Your task to perform on an android device: change the clock display to digital Image 0: 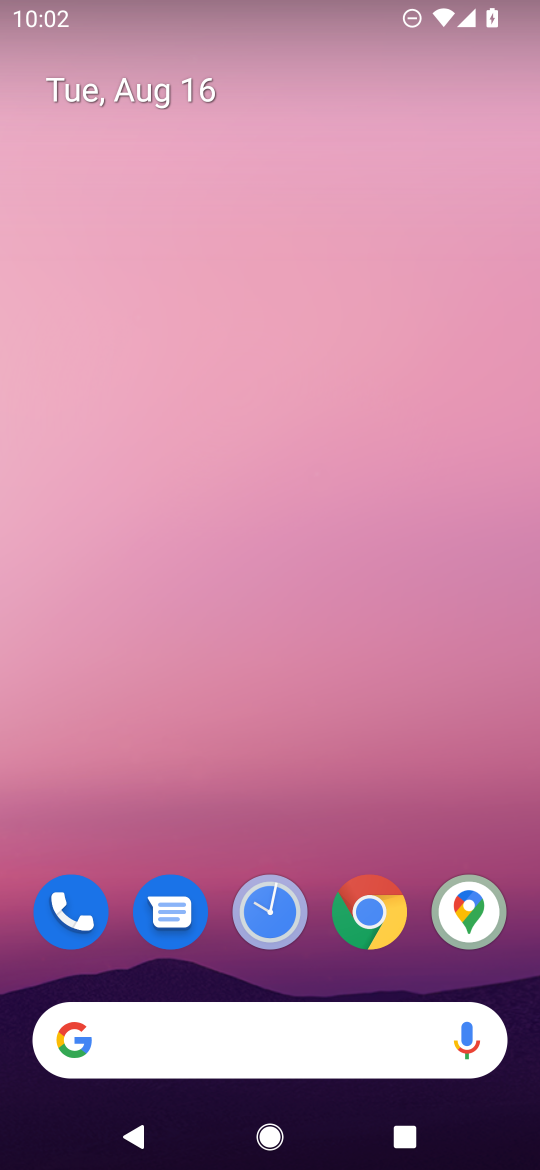
Step 0: click (297, 907)
Your task to perform on an android device: change the clock display to digital Image 1: 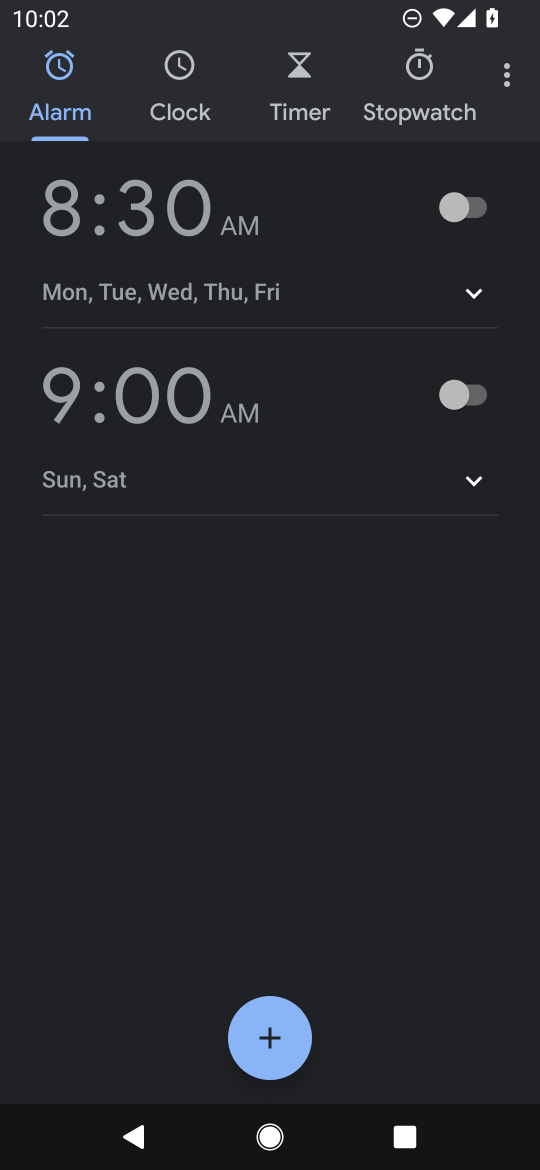
Step 1: click (520, 64)
Your task to perform on an android device: change the clock display to digital Image 2: 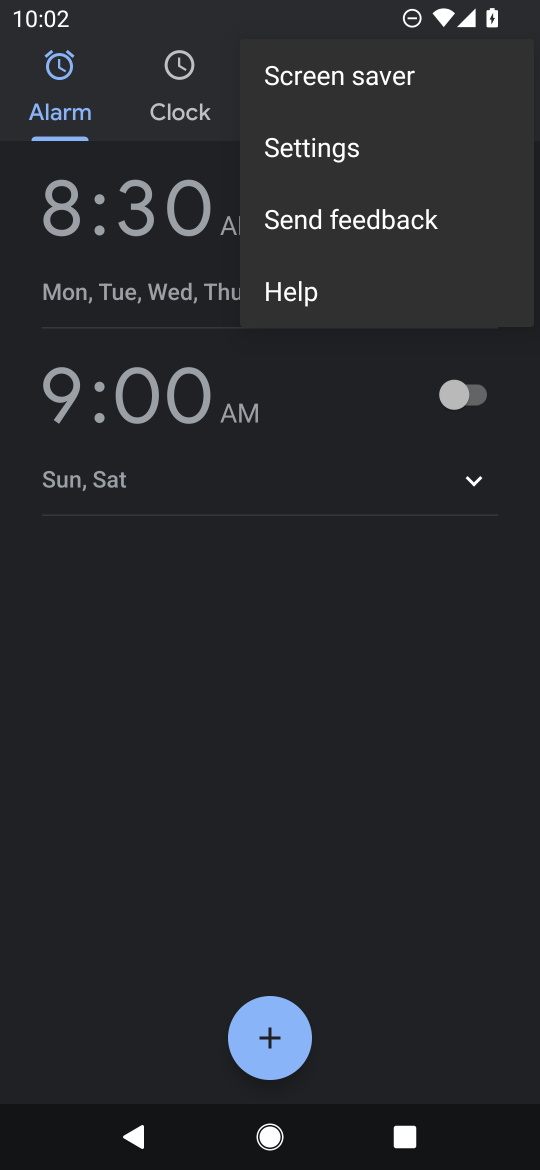
Step 2: click (293, 158)
Your task to perform on an android device: change the clock display to digital Image 3: 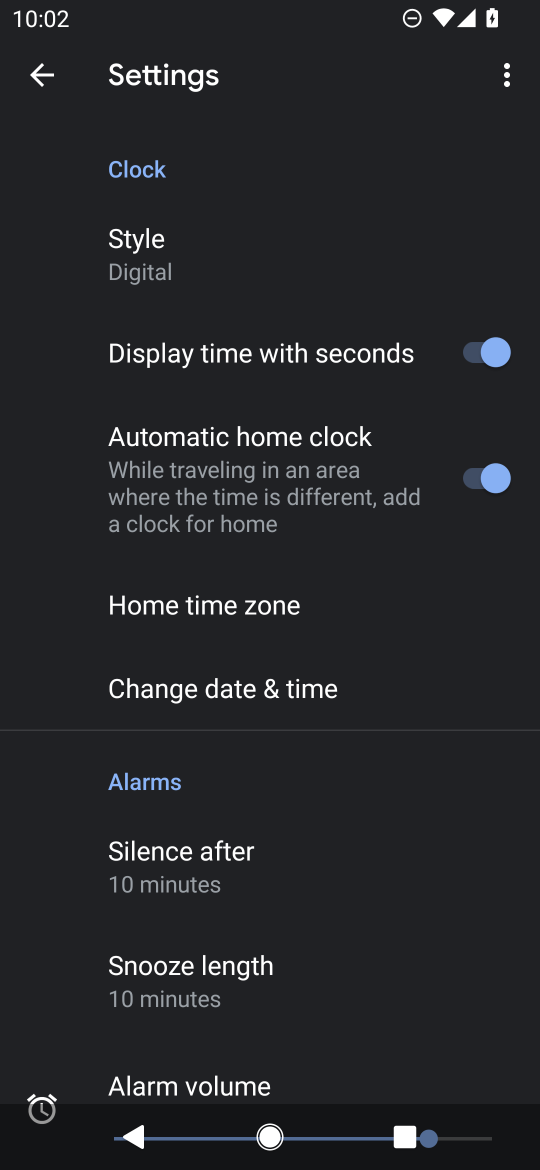
Step 3: task complete